Your task to perform on an android device: toggle improve location accuracy Image 0: 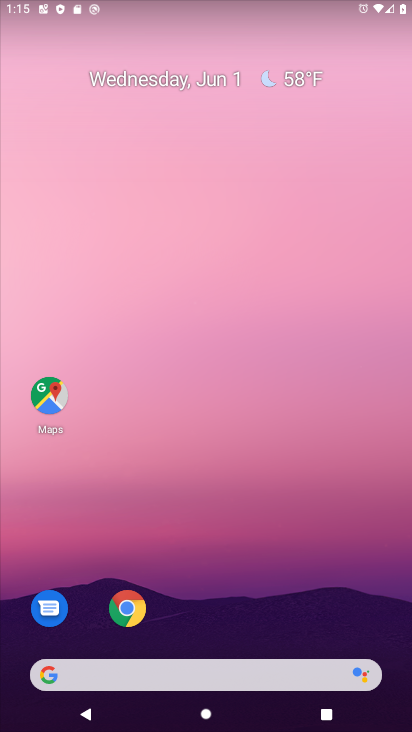
Step 0: drag from (251, 506) to (323, 63)
Your task to perform on an android device: toggle improve location accuracy Image 1: 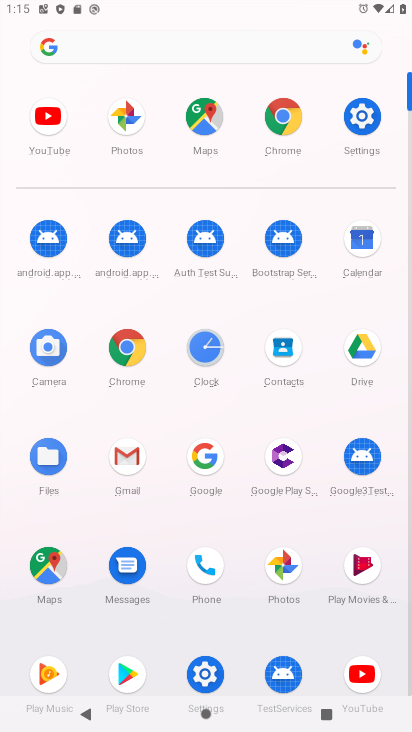
Step 1: click (369, 110)
Your task to perform on an android device: toggle improve location accuracy Image 2: 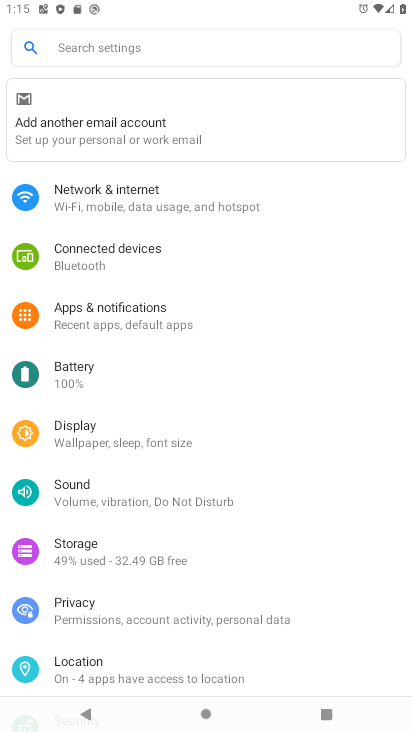
Step 2: click (155, 652)
Your task to perform on an android device: toggle improve location accuracy Image 3: 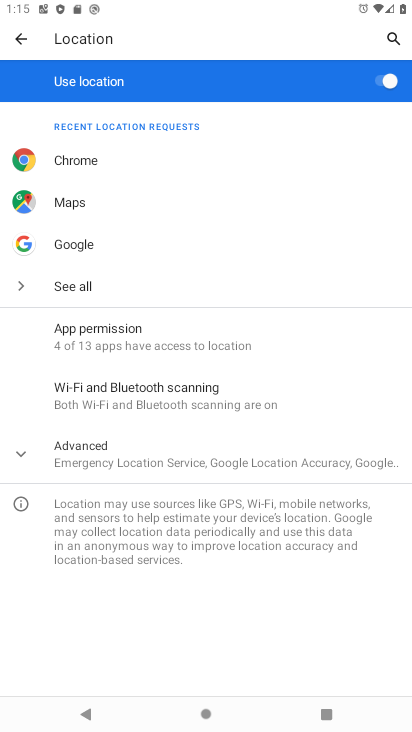
Step 3: click (165, 447)
Your task to perform on an android device: toggle improve location accuracy Image 4: 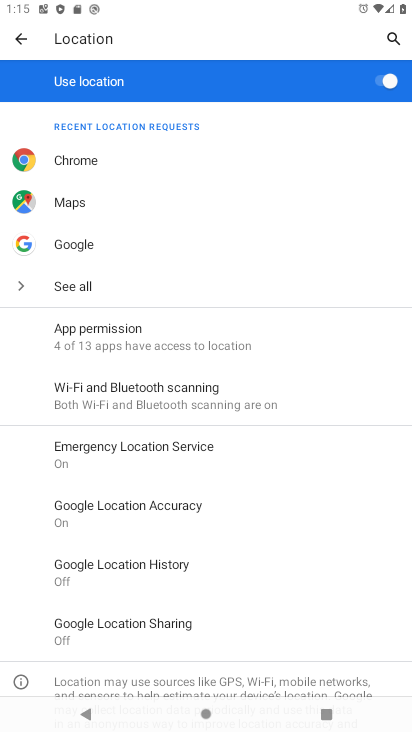
Step 4: click (191, 502)
Your task to perform on an android device: toggle improve location accuracy Image 5: 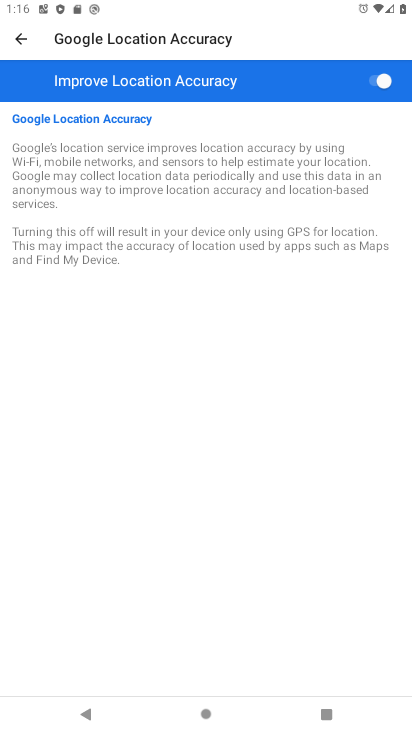
Step 5: click (380, 77)
Your task to perform on an android device: toggle improve location accuracy Image 6: 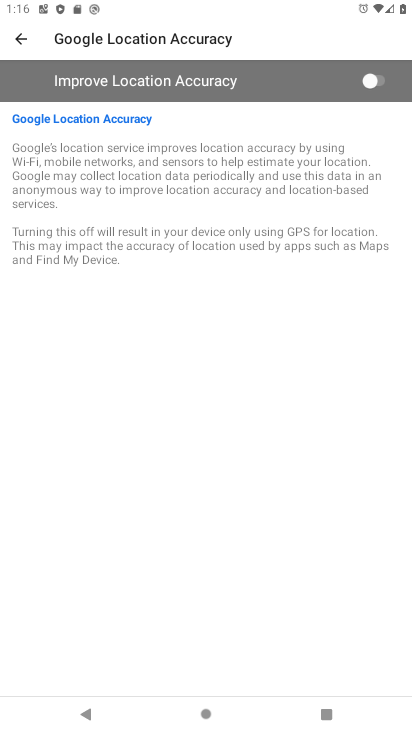
Step 6: task complete